Your task to perform on an android device: Go to wifi settings Image 0: 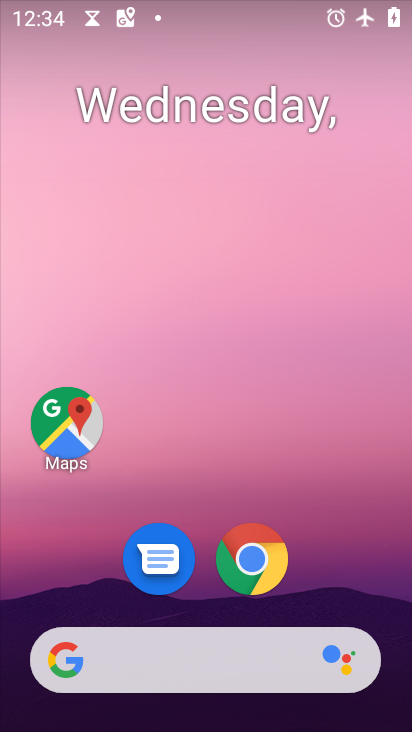
Step 0: click (375, 594)
Your task to perform on an android device: Go to wifi settings Image 1: 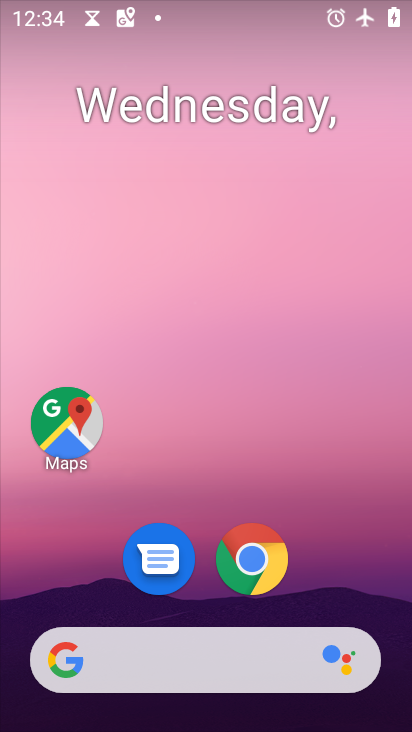
Step 1: drag from (364, 605) to (223, 4)
Your task to perform on an android device: Go to wifi settings Image 2: 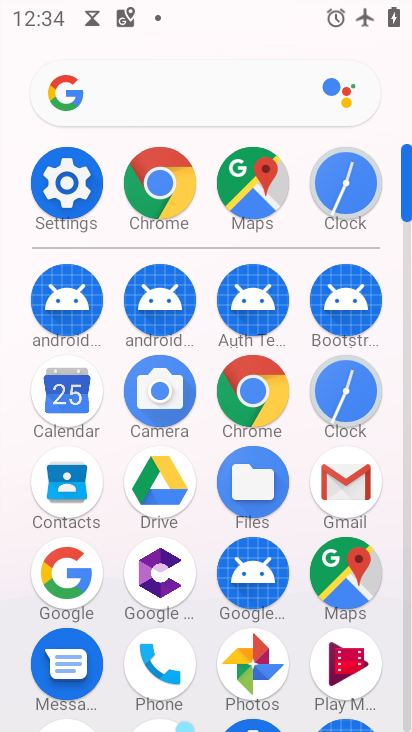
Step 2: click (61, 203)
Your task to perform on an android device: Go to wifi settings Image 3: 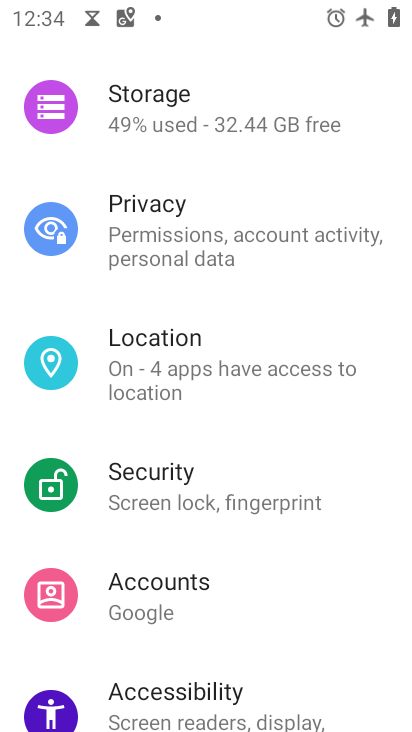
Step 3: drag from (160, 153) to (308, 719)
Your task to perform on an android device: Go to wifi settings Image 4: 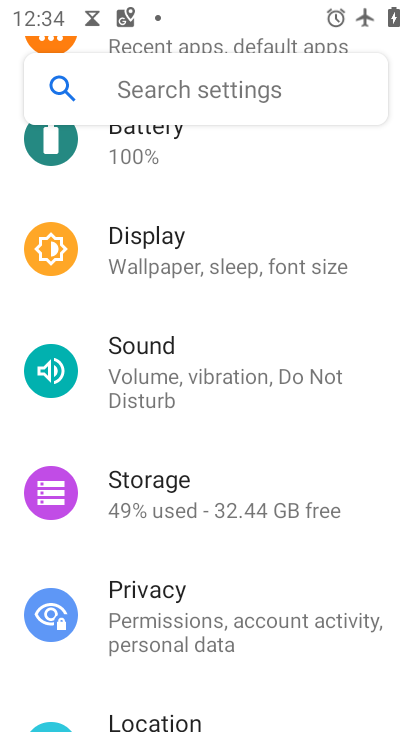
Step 4: drag from (208, 180) to (327, 725)
Your task to perform on an android device: Go to wifi settings Image 5: 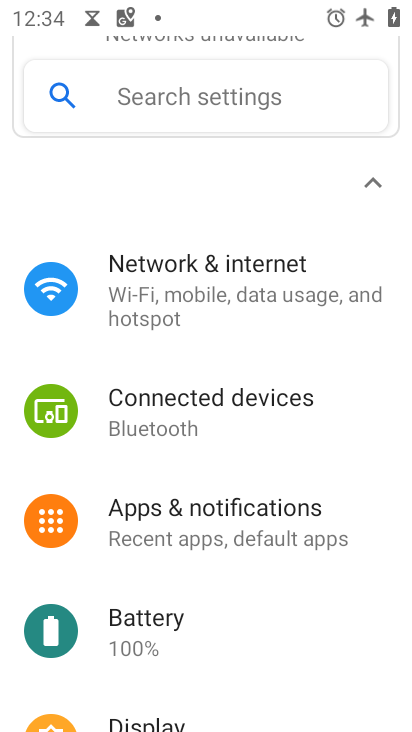
Step 5: drag from (234, 265) to (316, 663)
Your task to perform on an android device: Go to wifi settings Image 6: 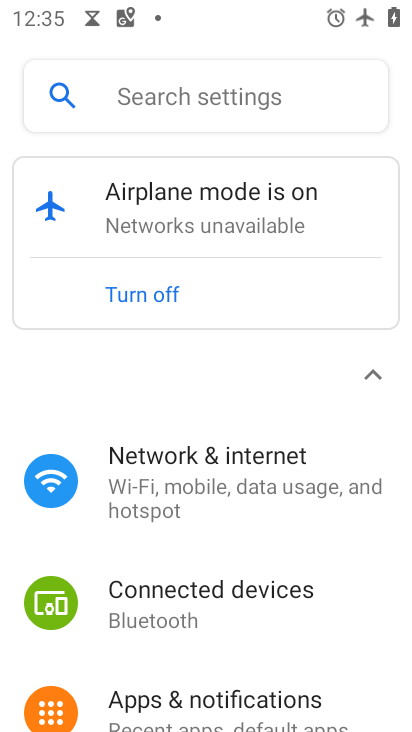
Step 6: click (168, 462)
Your task to perform on an android device: Go to wifi settings Image 7: 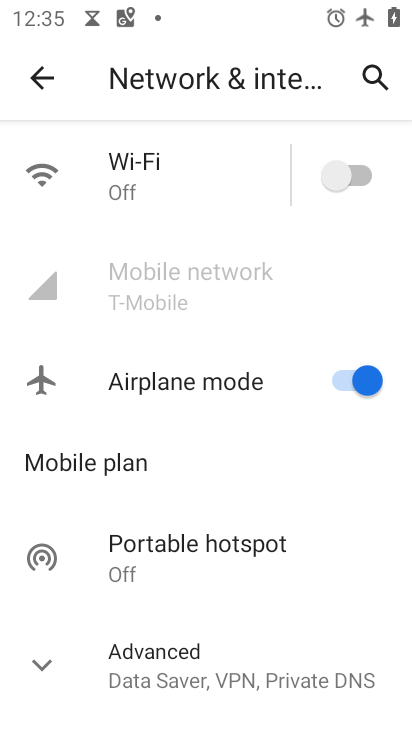
Step 7: click (338, 393)
Your task to perform on an android device: Go to wifi settings Image 8: 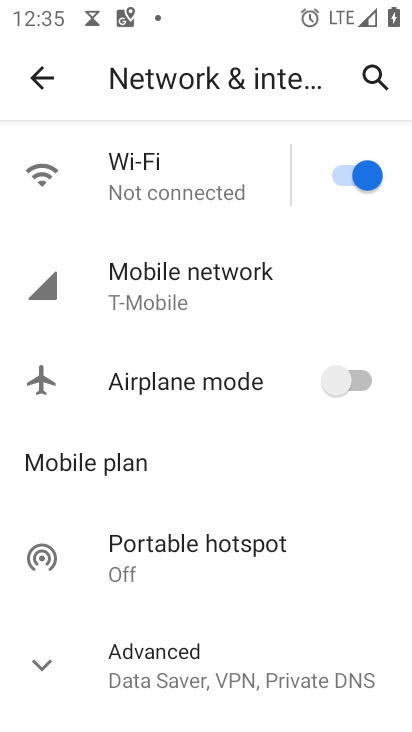
Step 8: task complete